Your task to perform on an android device: turn off translation in the chrome app Image 0: 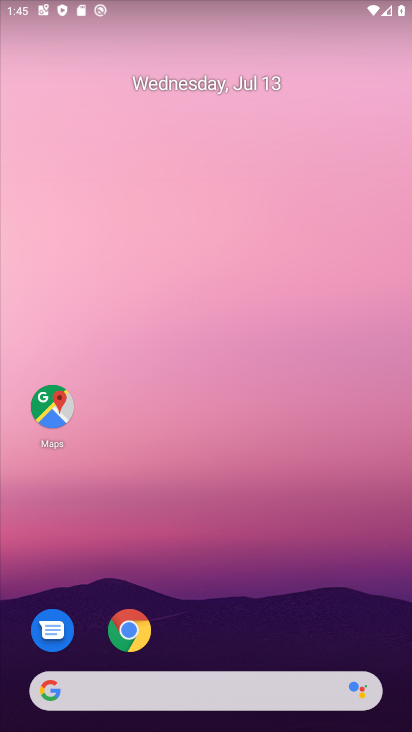
Step 0: drag from (337, 628) to (361, 85)
Your task to perform on an android device: turn off translation in the chrome app Image 1: 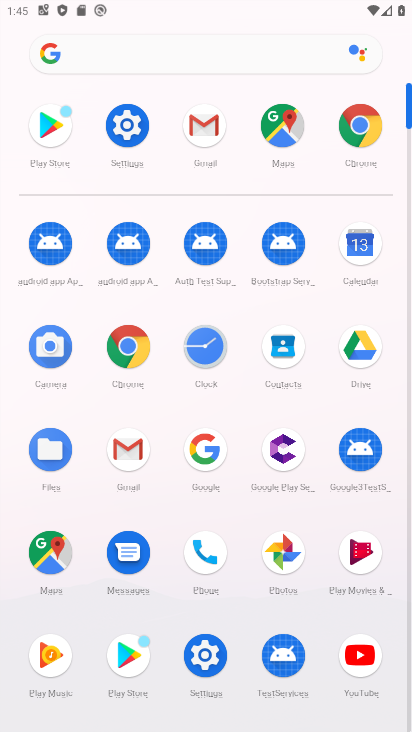
Step 1: click (355, 134)
Your task to perform on an android device: turn off translation in the chrome app Image 2: 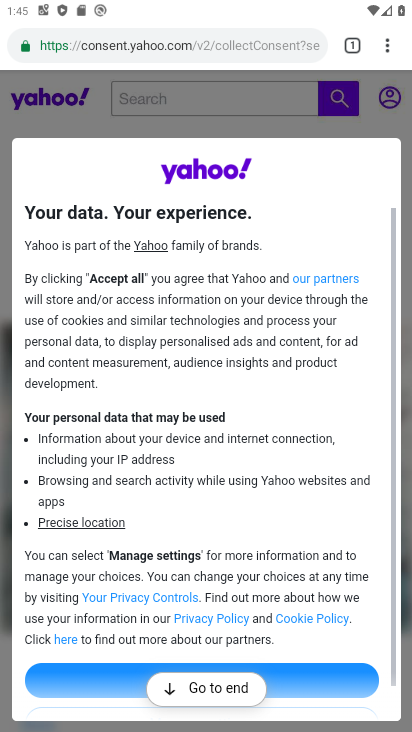
Step 2: click (384, 47)
Your task to perform on an android device: turn off translation in the chrome app Image 3: 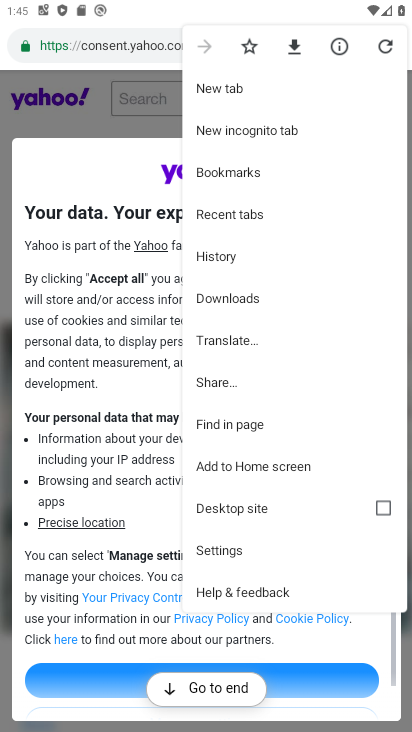
Step 3: click (278, 543)
Your task to perform on an android device: turn off translation in the chrome app Image 4: 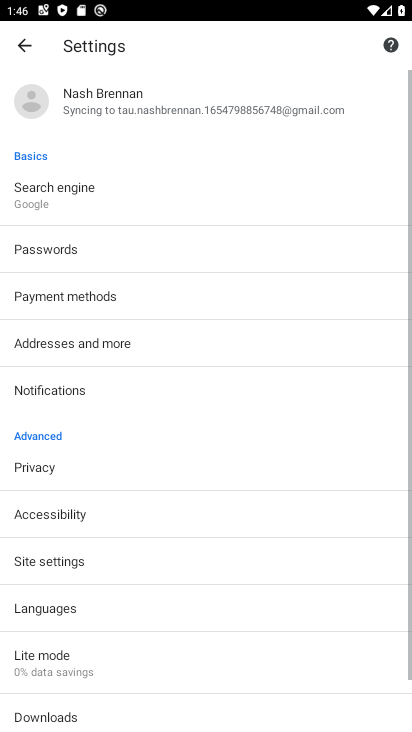
Step 4: drag from (282, 544) to (302, 453)
Your task to perform on an android device: turn off translation in the chrome app Image 5: 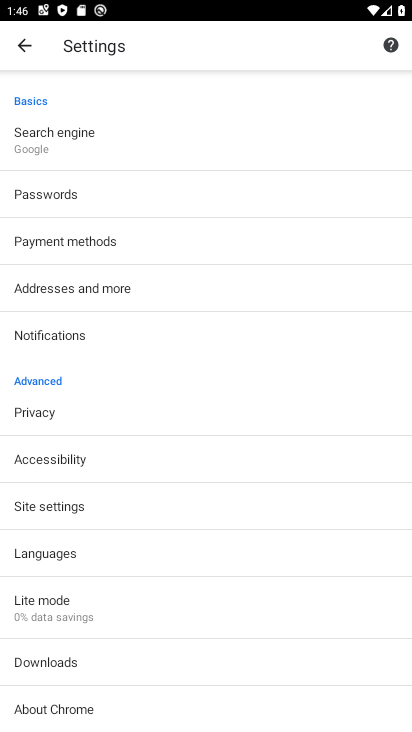
Step 5: drag from (330, 321) to (330, 390)
Your task to perform on an android device: turn off translation in the chrome app Image 6: 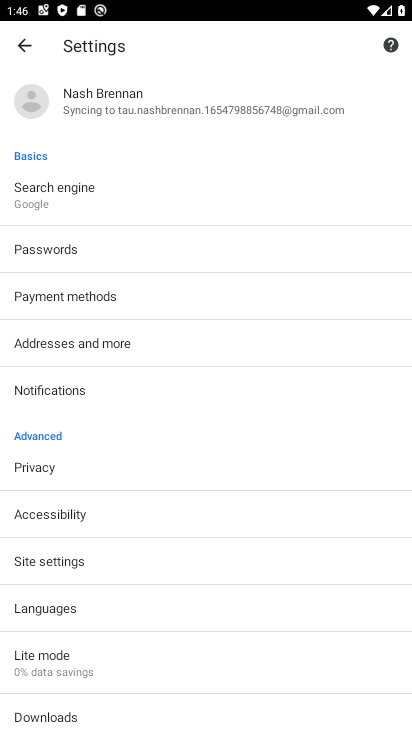
Step 6: drag from (338, 286) to (339, 388)
Your task to perform on an android device: turn off translation in the chrome app Image 7: 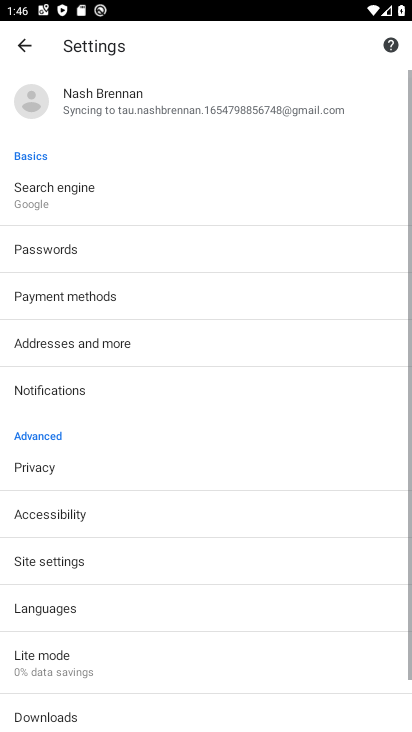
Step 7: drag from (339, 420) to (344, 322)
Your task to perform on an android device: turn off translation in the chrome app Image 8: 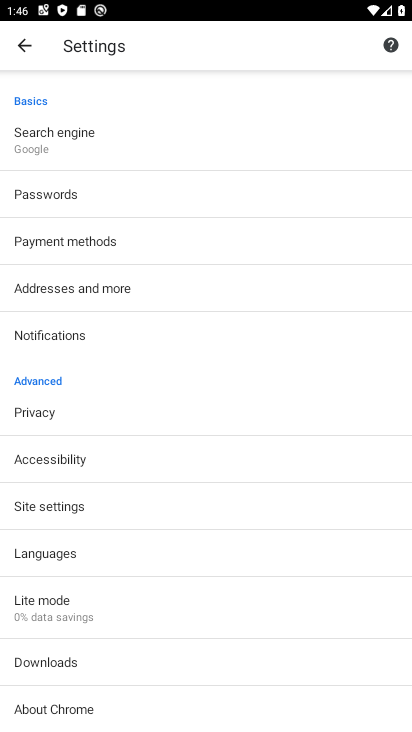
Step 8: click (322, 547)
Your task to perform on an android device: turn off translation in the chrome app Image 9: 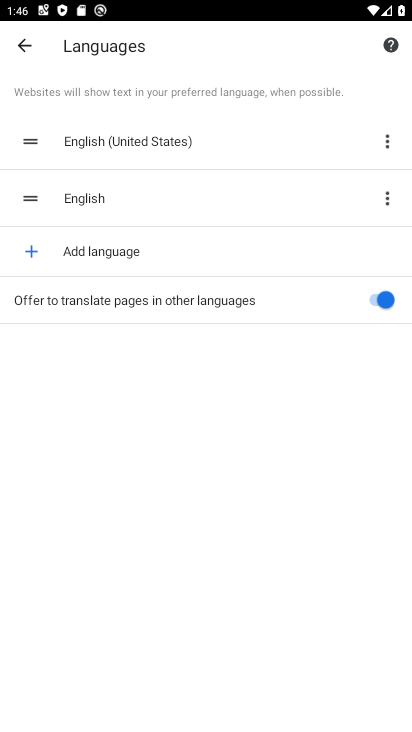
Step 9: click (375, 300)
Your task to perform on an android device: turn off translation in the chrome app Image 10: 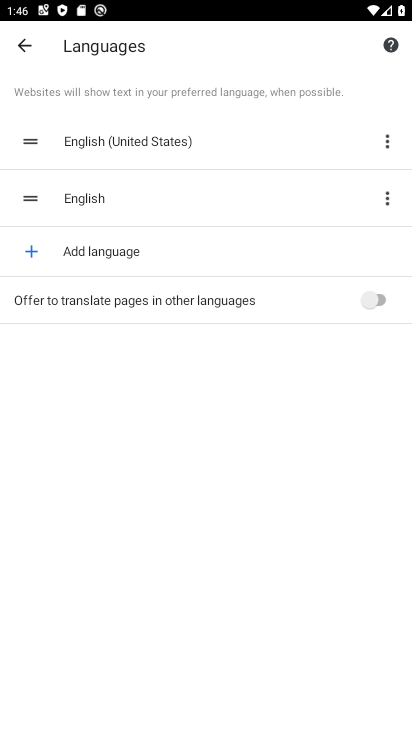
Step 10: task complete